Your task to perform on an android device: change the clock style Image 0: 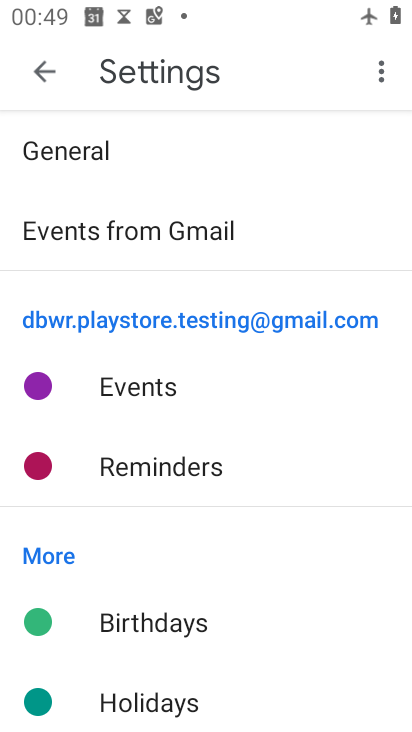
Step 0: press home button
Your task to perform on an android device: change the clock style Image 1: 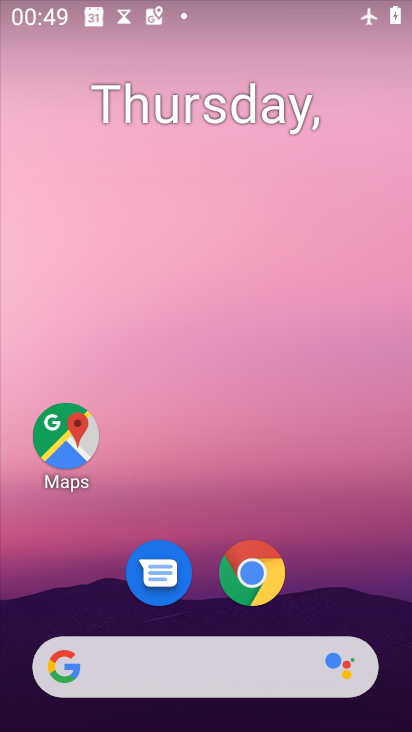
Step 1: drag from (307, 587) to (338, 251)
Your task to perform on an android device: change the clock style Image 2: 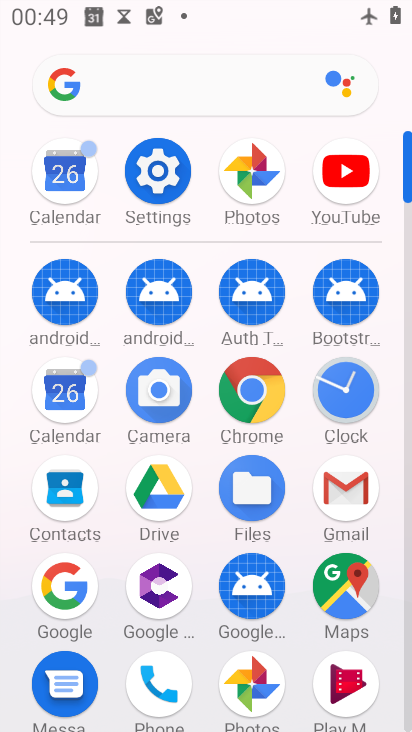
Step 2: click (338, 386)
Your task to perform on an android device: change the clock style Image 3: 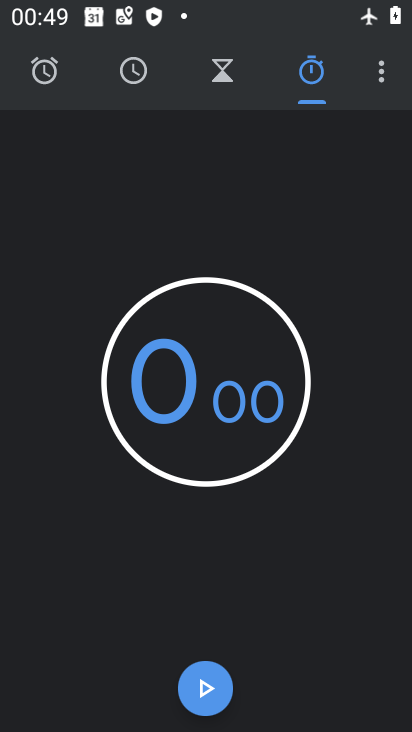
Step 3: click (391, 66)
Your task to perform on an android device: change the clock style Image 4: 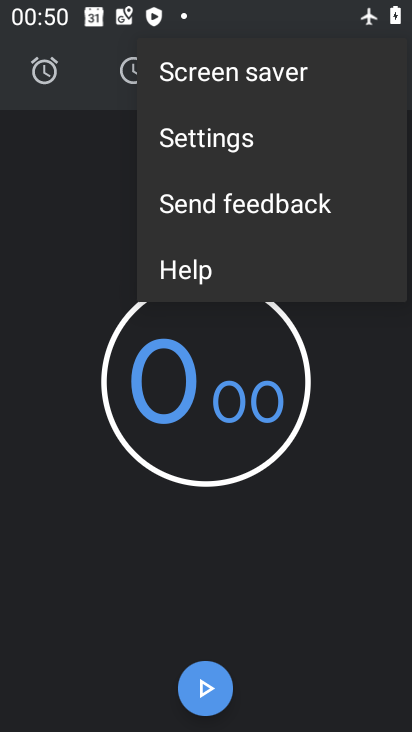
Step 4: click (256, 127)
Your task to perform on an android device: change the clock style Image 5: 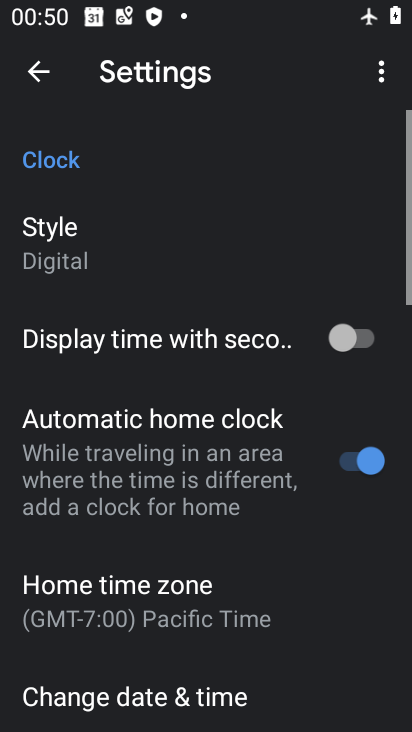
Step 5: click (97, 231)
Your task to perform on an android device: change the clock style Image 6: 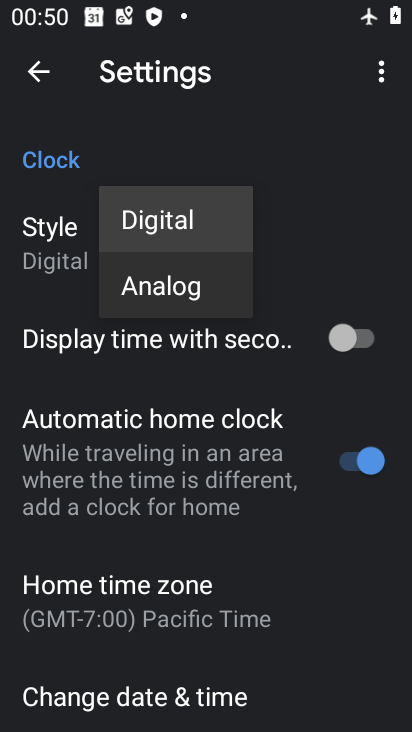
Step 6: click (140, 285)
Your task to perform on an android device: change the clock style Image 7: 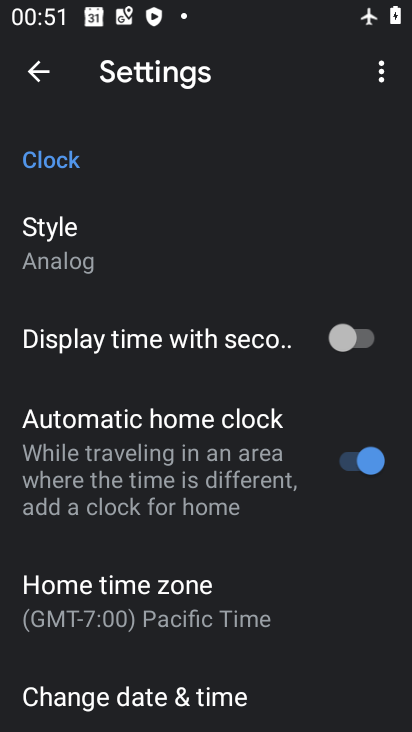
Step 7: task complete